Your task to perform on an android device: find snoozed emails in the gmail app Image 0: 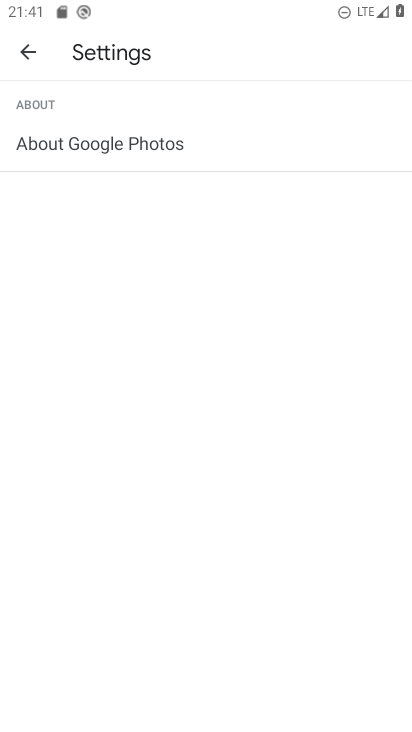
Step 0: press home button
Your task to perform on an android device: find snoozed emails in the gmail app Image 1: 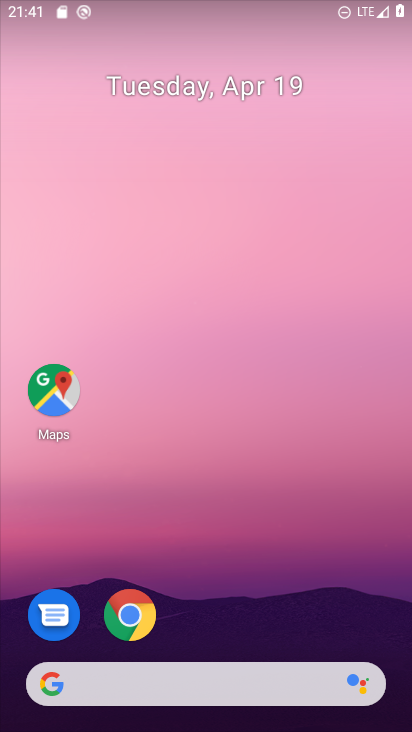
Step 1: drag from (257, 612) to (323, 564)
Your task to perform on an android device: find snoozed emails in the gmail app Image 2: 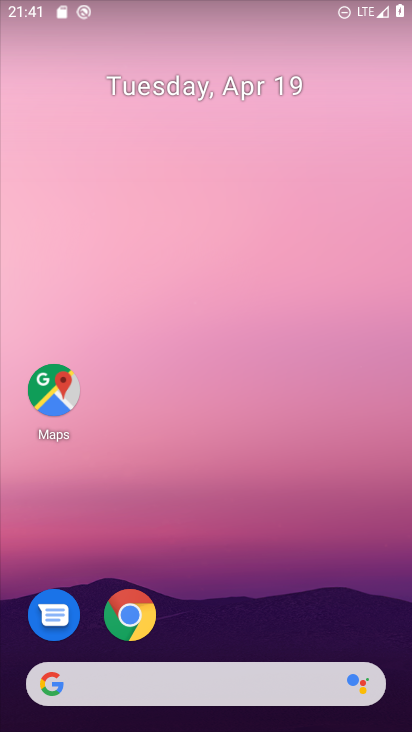
Step 2: drag from (302, 639) to (348, 624)
Your task to perform on an android device: find snoozed emails in the gmail app Image 3: 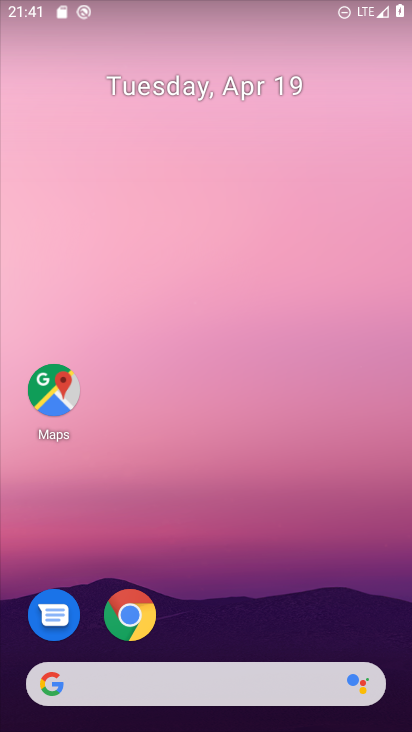
Step 3: drag from (303, 401) to (269, 98)
Your task to perform on an android device: find snoozed emails in the gmail app Image 4: 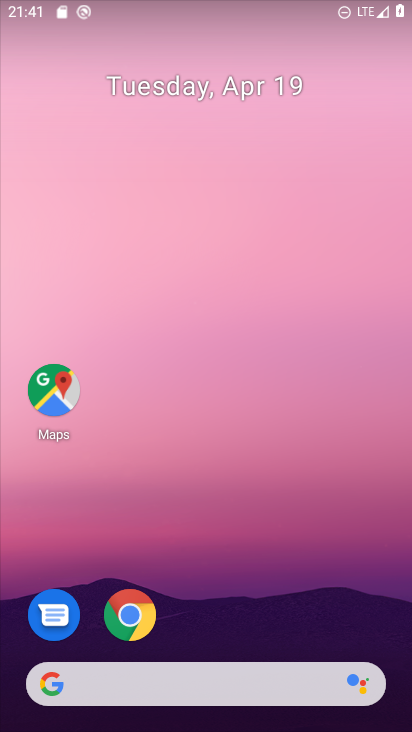
Step 4: drag from (231, 626) to (171, 55)
Your task to perform on an android device: find snoozed emails in the gmail app Image 5: 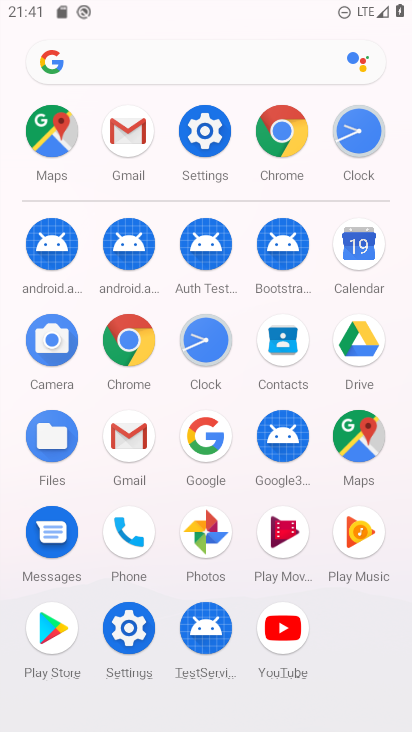
Step 5: click (117, 138)
Your task to perform on an android device: find snoozed emails in the gmail app Image 6: 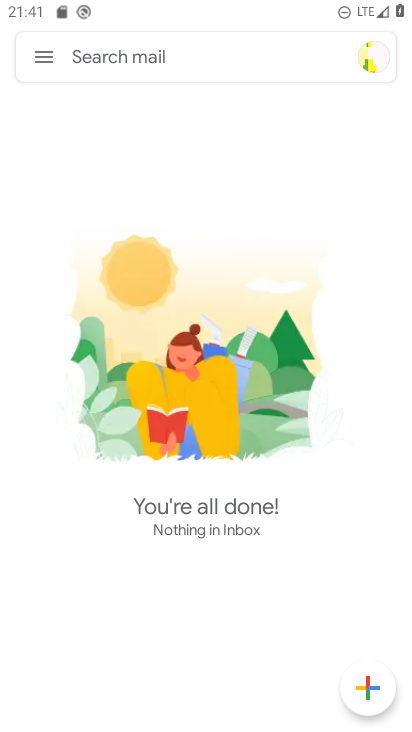
Step 6: click (52, 50)
Your task to perform on an android device: find snoozed emails in the gmail app Image 7: 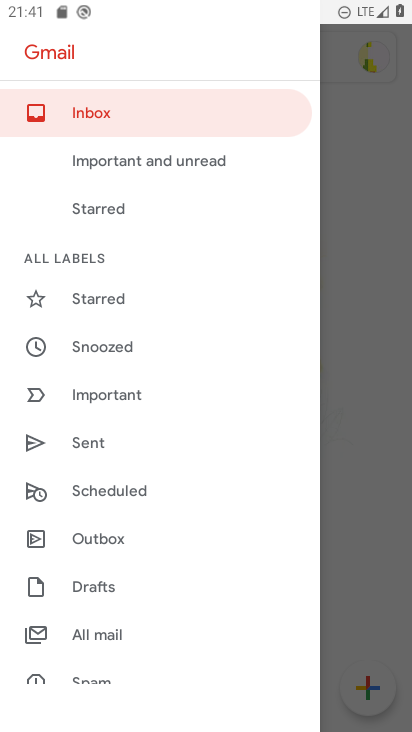
Step 7: click (130, 350)
Your task to perform on an android device: find snoozed emails in the gmail app Image 8: 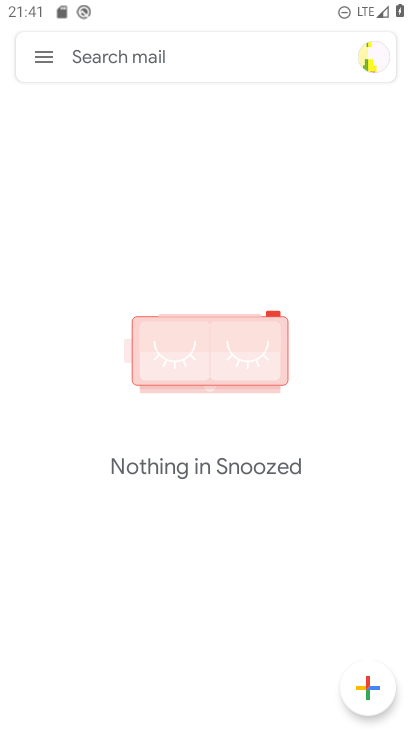
Step 8: task complete